Your task to perform on an android device: What's the weather going to be this weekend? Image 0: 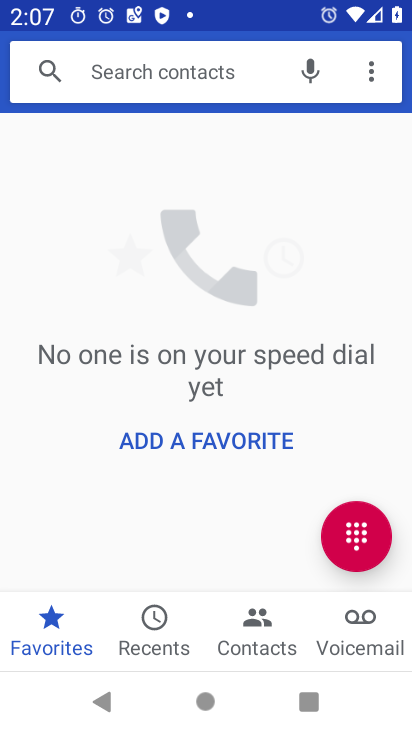
Step 0: press home button
Your task to perform on an android device: What's the weather going to be this weekend? Image 1: 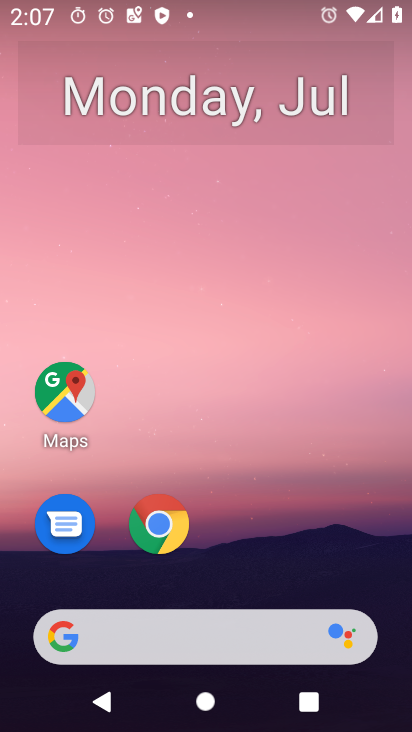
Step 1: click (49, 646)
Your task to perform on an android device: What's the weather going to be this weekend? Image 2: 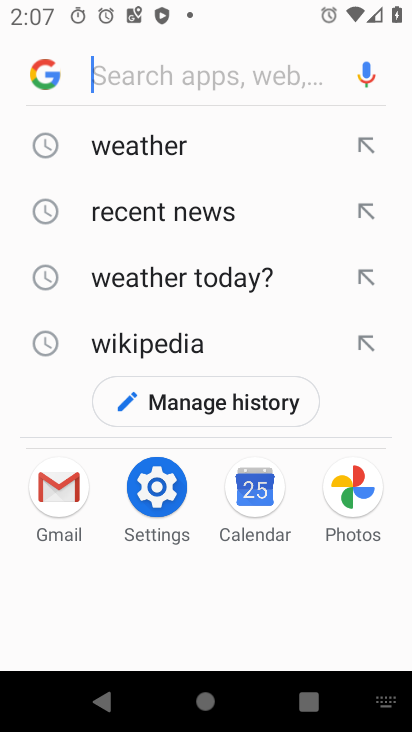
Step 2: type "weather going to be this weekend?"
Your task to perform on an android device: What's the weather going to be this weekend? Image 3: 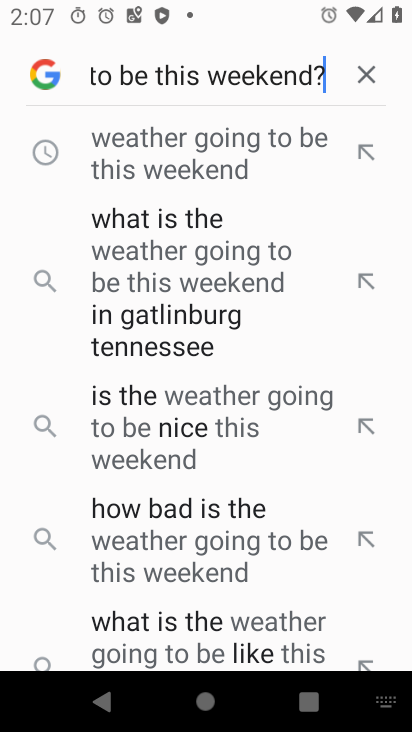
Step 3: press enter
Your task to perform on an android device: What's the weather going to be this weekend? Image 4: 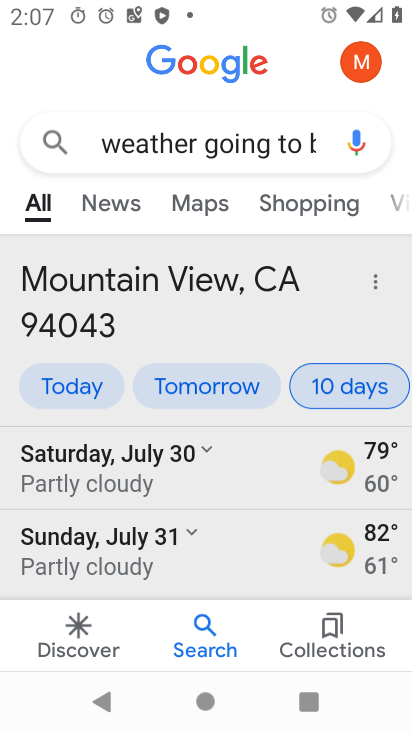
Step 4: task complete